Your task to perform on an android device: change the clock display to analog Image 0: 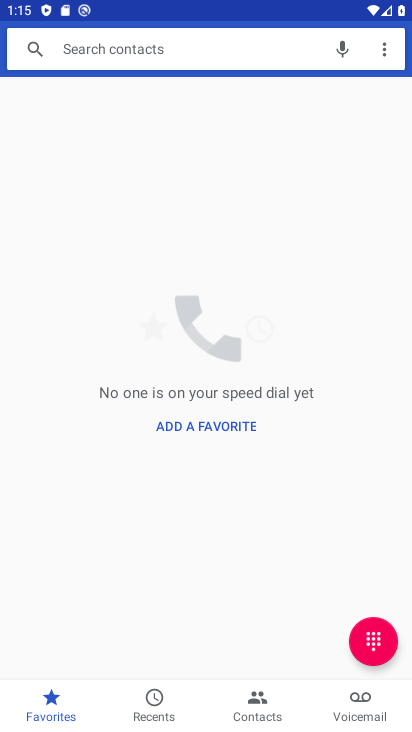
Step 0: press home button
Your task to perform on an android device: change the clock display to analog Image 1: 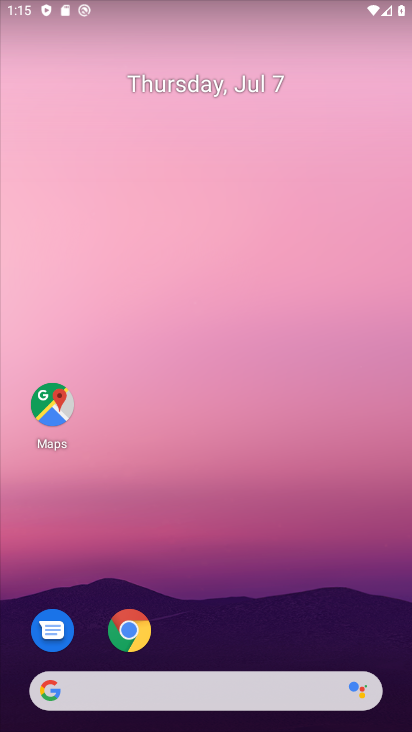
Step 1: drag from (271, 619) to (154, 99)
Your task to perform on an android device: change the clock display to analog Image 2: 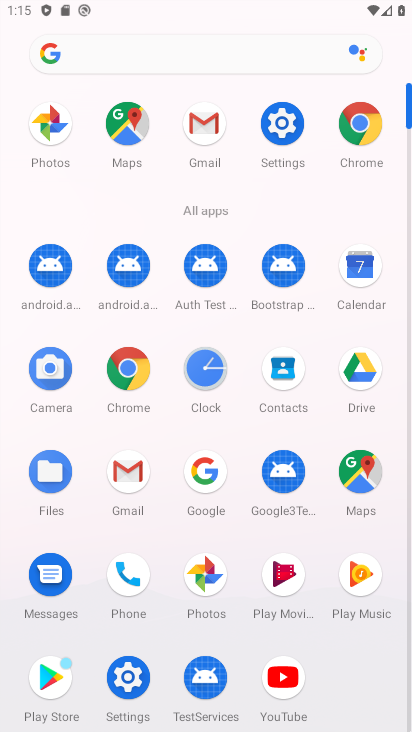
Step 2: click (204, 382)
Your task to perform on an android device: change the clock display to analog Image 3: 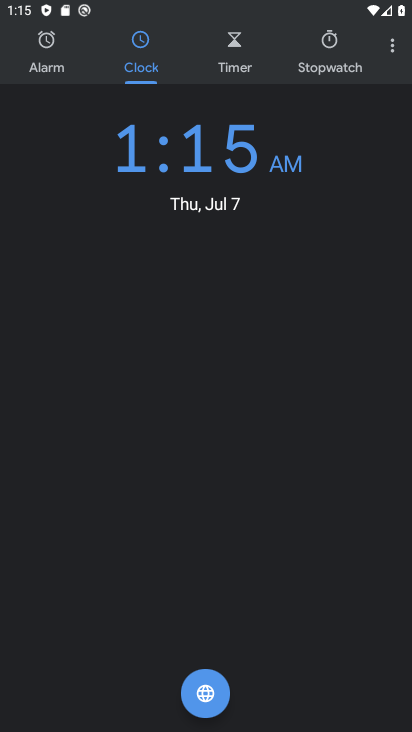
Step 3: click (396, 57)
Your task to perform on an android device: change the clock display to analog Image 4: 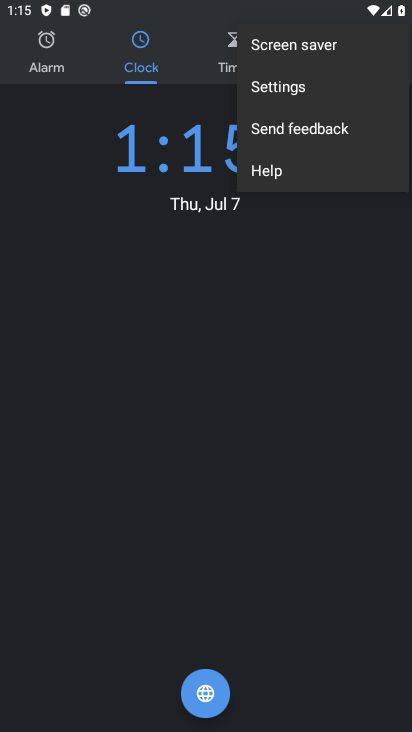
Step 4: click (334, 82)
Your task to perform on an android device: change the clock display to analog Image 5: 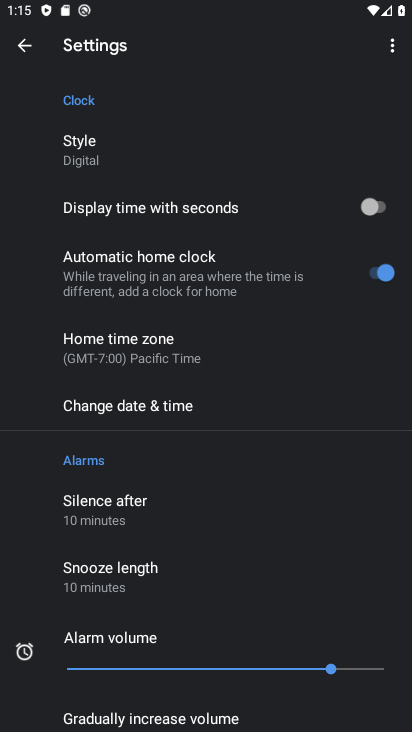
Step 5: click (185, 152)
Your task to perform on an android device: change the clock display to analog Image 6: 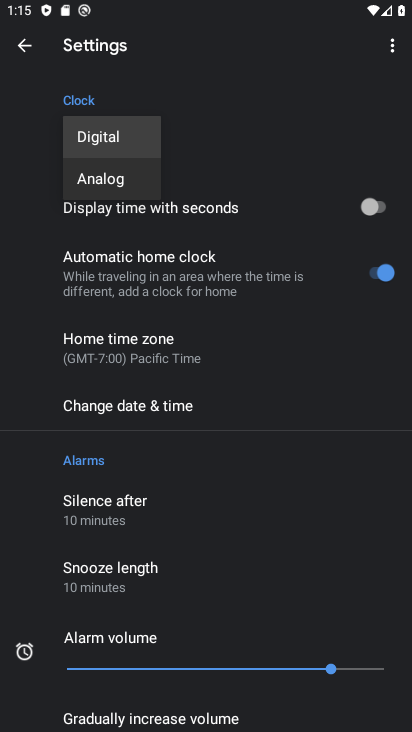
Step 6: click (132, 188)
Your task to perform on an android device: change the clock display to analog Image 7: 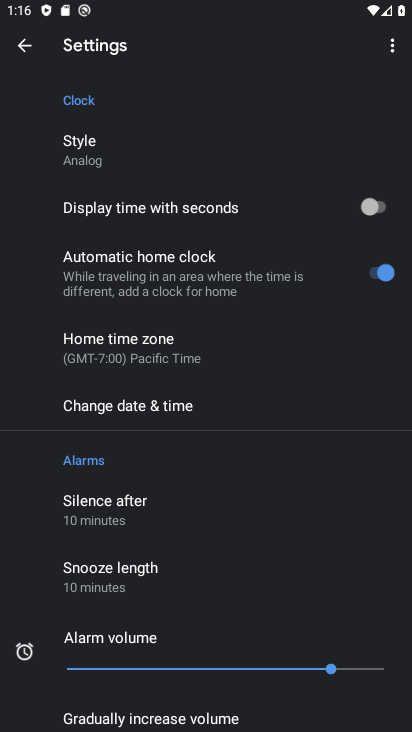
Step 7: task complete